Your task to perform on an android device: change the clock display to show seconds Image 0: 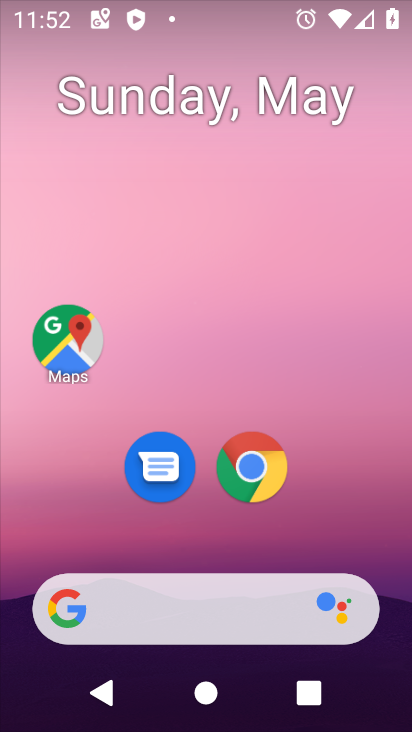
Step 0: click (391, 572)
Your task to perform on an android device: change the clock display to show seconds Image 1: 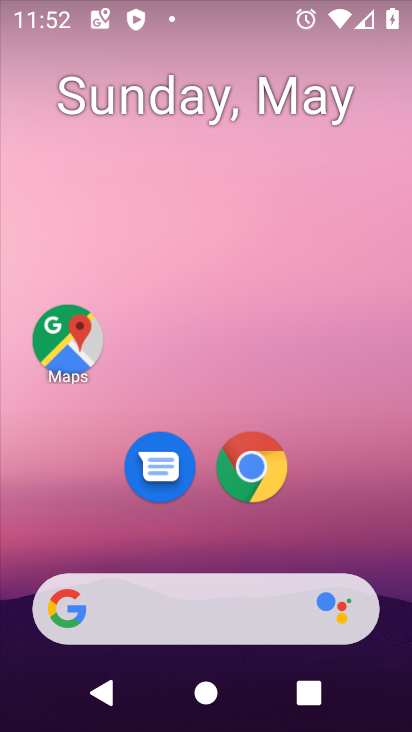
Step 1: drag from (400, 572) to (409, 476)
Your task to perform on an android device: change the clock display to show seconds Image 2: 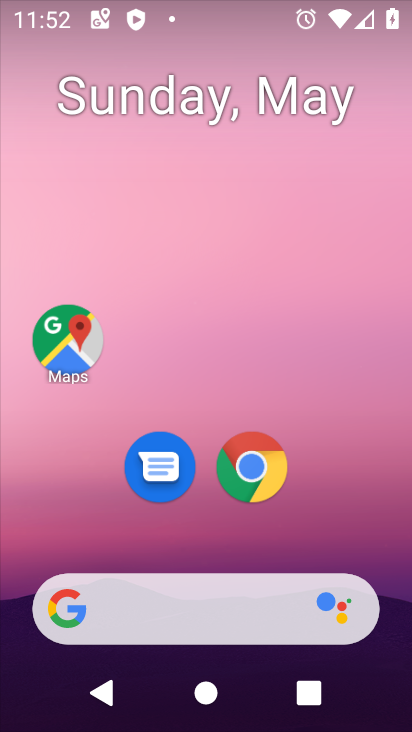
Step 2: click (348, 392)
Your task to perform on an android device: change the clock display to show seconds Image 3: 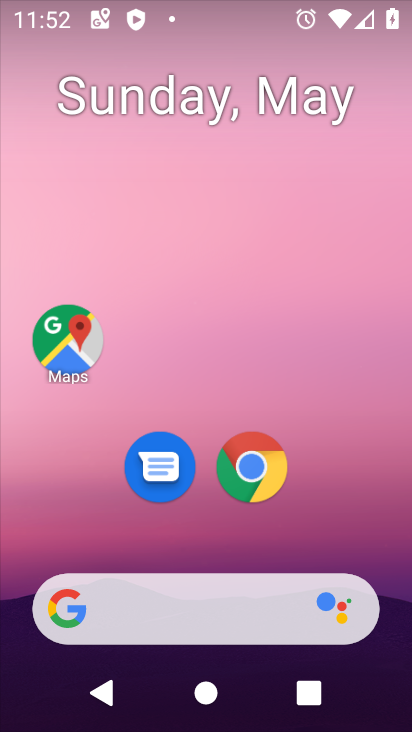
Step 3: drag from (364, 564) to (381, 10)
Your task to perform on an android device: change the clock display to show seconds Image 4: 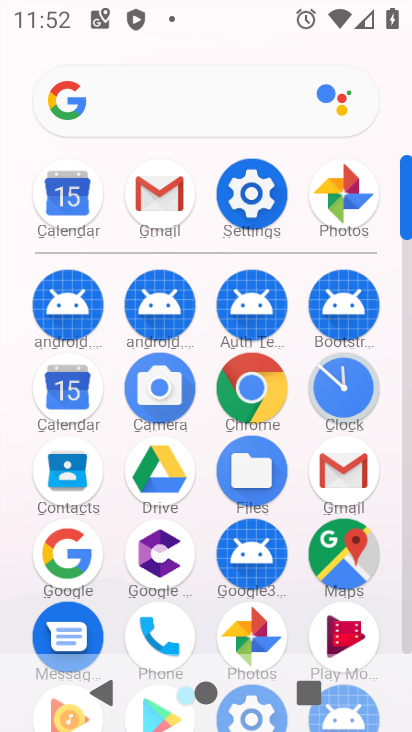
Step 4: click (342, 395)
Your task to perform on an android device: change the clock display to show seconds Image 5: 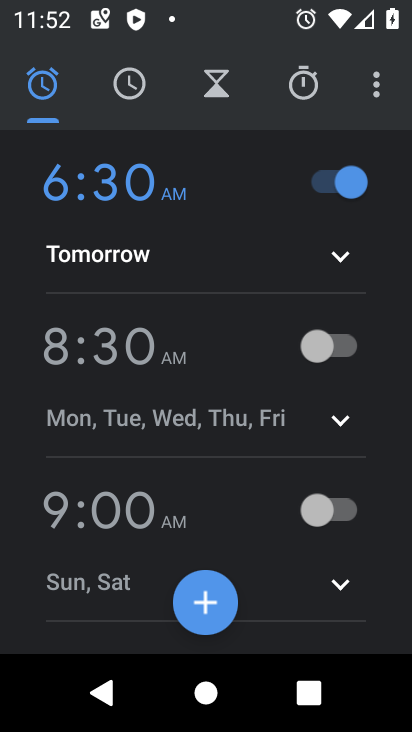
Step 5: click (373, 80)
Your task to perform on an android device: change the clock display to show seconds Image 6: 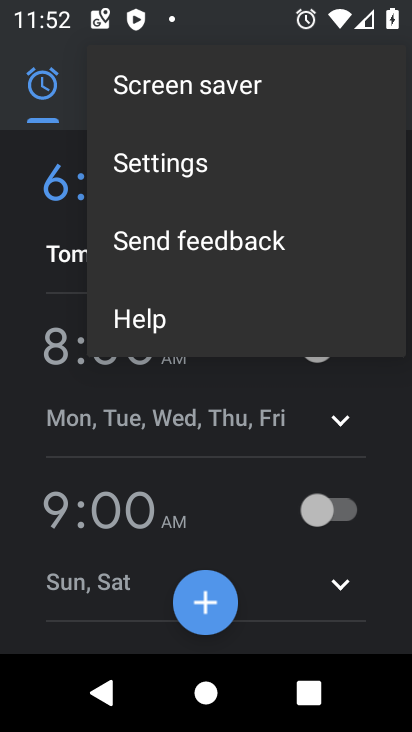
Step 6: click (161, 171)
Your task to perform on an android device: change the clock display to show seconds Image 7: 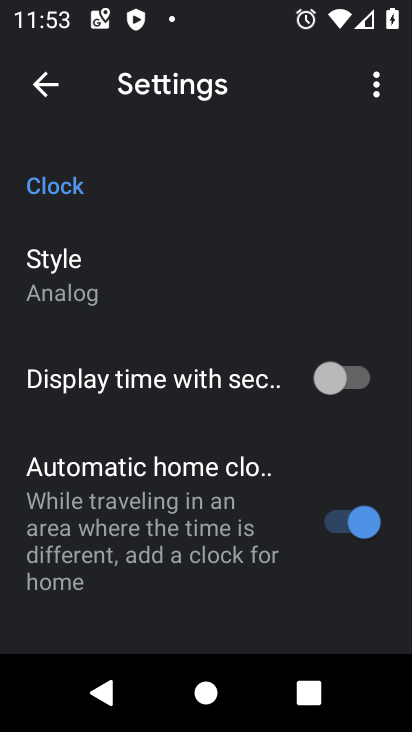
Step 7: click (322, 384)
Your task to perform on an android device: change the clock display to show seconds Image 8: 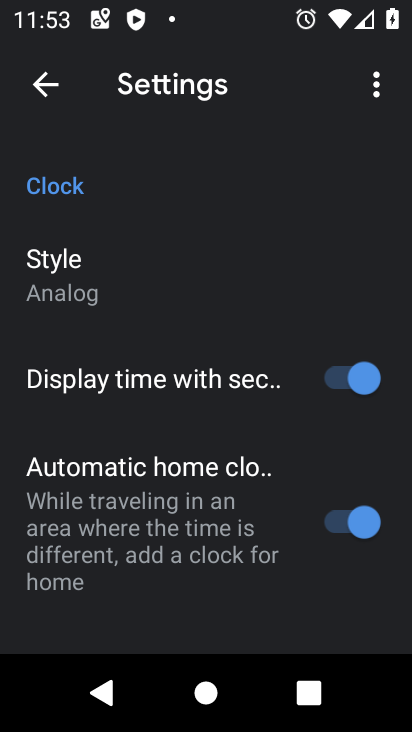
Step 8: task complete